Your task to perform on an android device: turn off data saver in the chrome app Image 0: 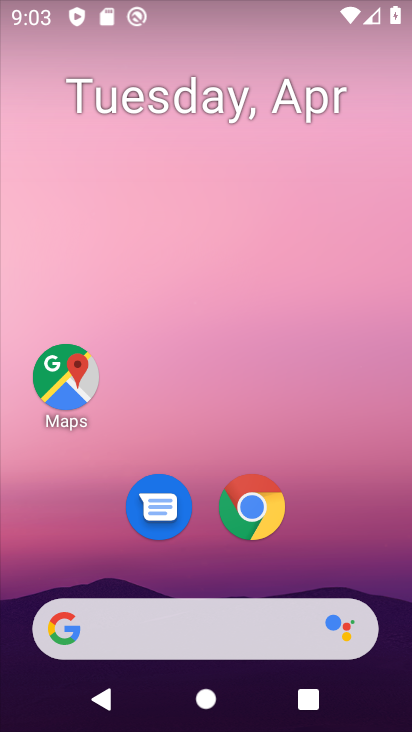
Step 0: drag from (350, 490) to (347, 157)
Your task to perform on an android device: turn off data saver in the chrome app Image 1: 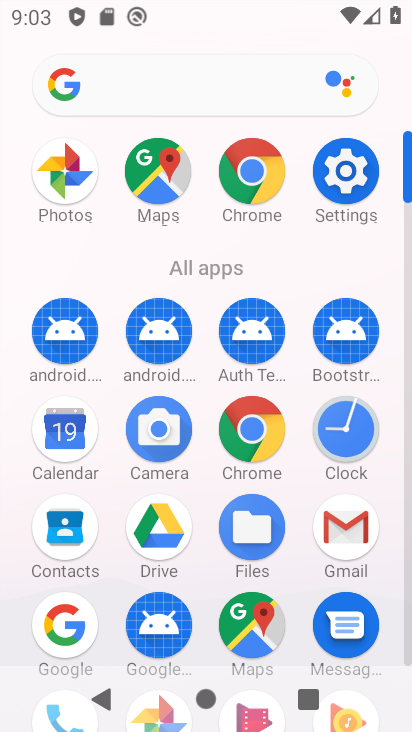
Step 1: click (252, 426)
Your task to perform on an android device: turn off data saver in the chrome app Image 2: 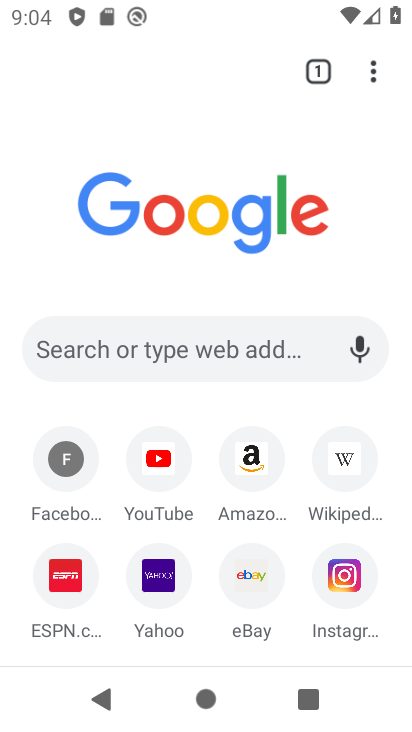
Step 2: drag from (377, 67) to (178, 503)
Your task to perform on an android device: turn off data saver in the chrome app Image 3: 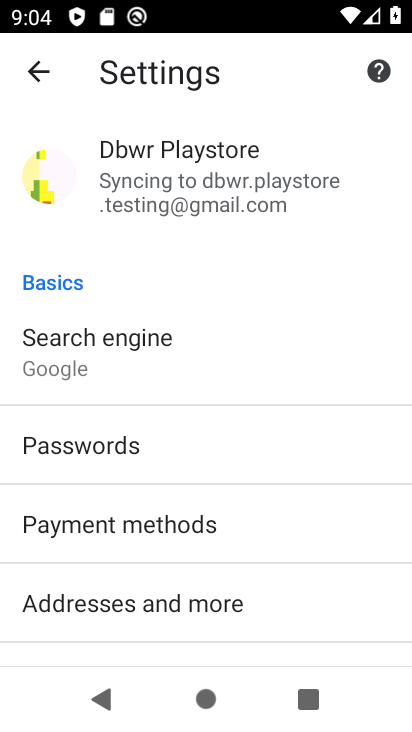
Step 3: drag from (194, 530) to (241, 162)
Your task to perform on an android device: turn off data saver in the chrome app Image 4: 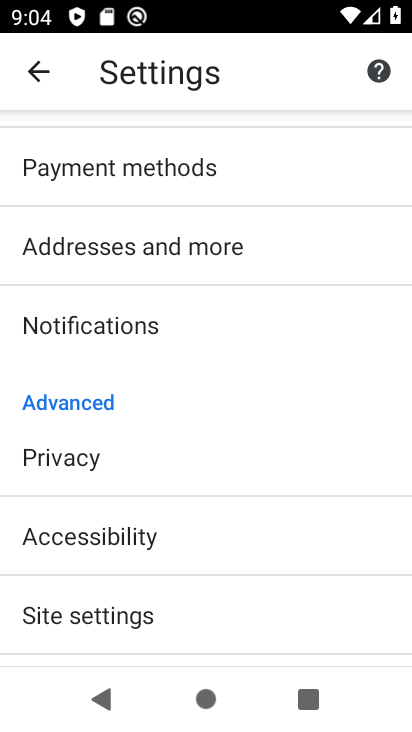
Step 4: drag from (168, 613) to (238, 359)
Your task to perform on an android device: turn off data saver in the chrome app Image 5: 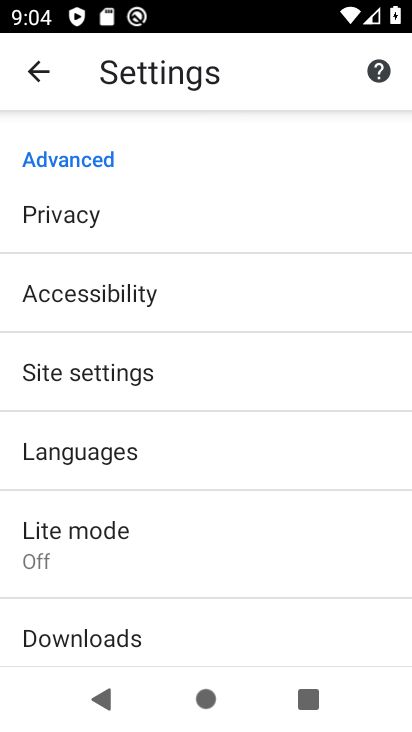
Step 5: click (61, 538)
Your task to perform on an android device: turn off data saver in the chrome app Image 6: 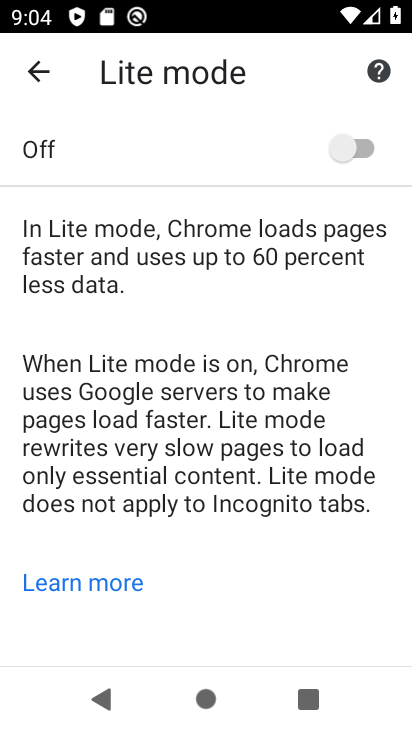
Step 6: task complete